Your task to perform on an android device: Is it going to rain tomorrow? Image 0: 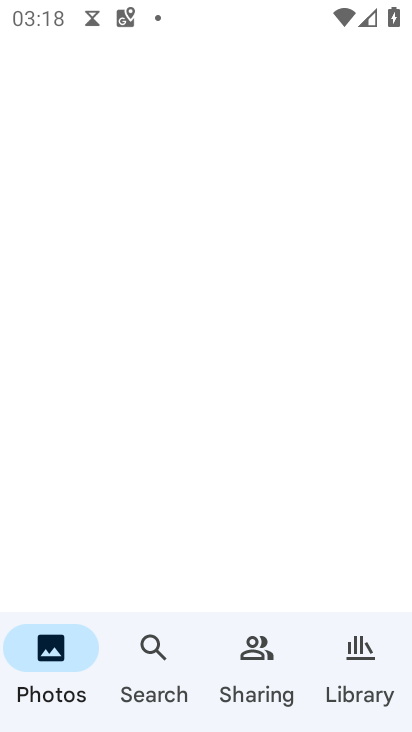
Step 0: click (244, 550)
Your task to perform on an android device: Is it going to rain tomorrow? Image 1: 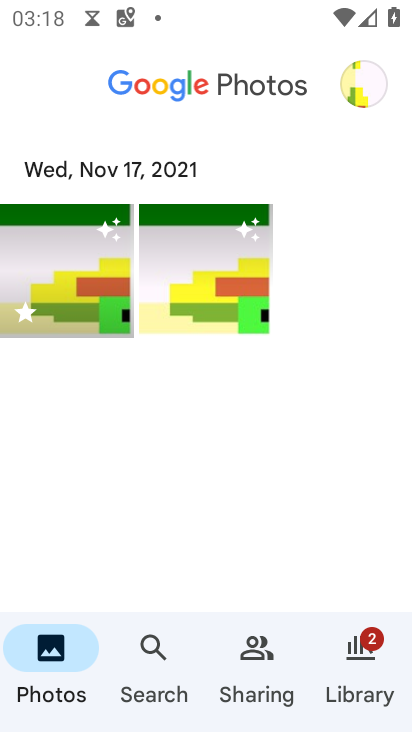
Step 1: press home button
Your task to perform on an android device: Is it going to rain tomorrow? Image 2: 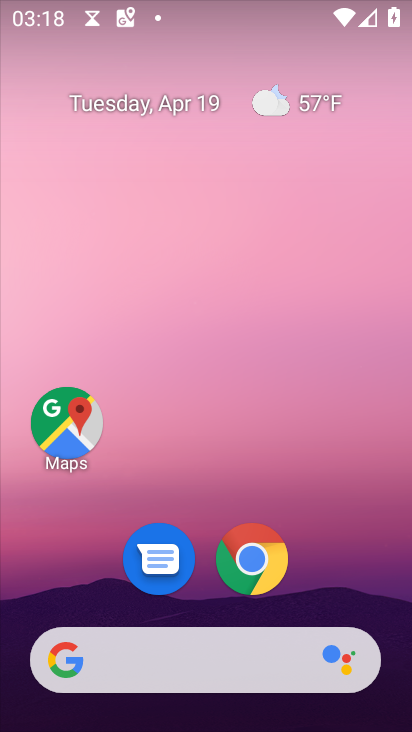
Step 2: click (272, 109)
Your task to perform on an android device: Is it going to rain tomorrow? Image 3: 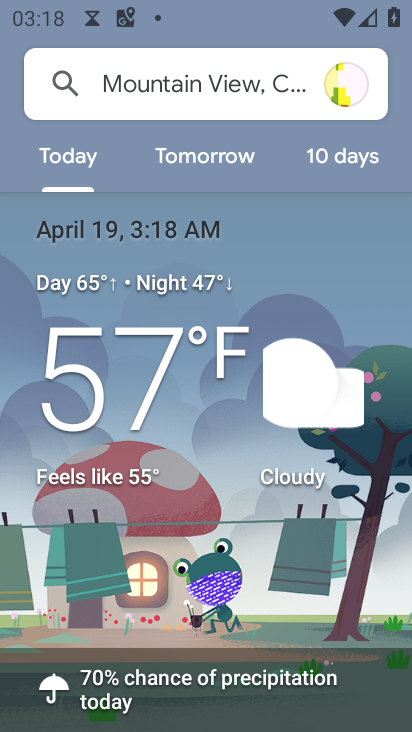
Step 3: click (194, 178)
Your task to perform on an android device: Is it going to rain tomorrow? Image 4: 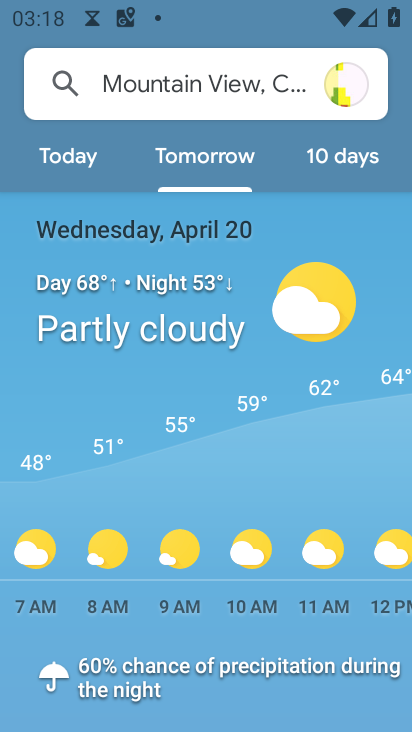
Step 4: task complete